Your task to perform on an android device: search for starred emails in the gmail app Image 0: 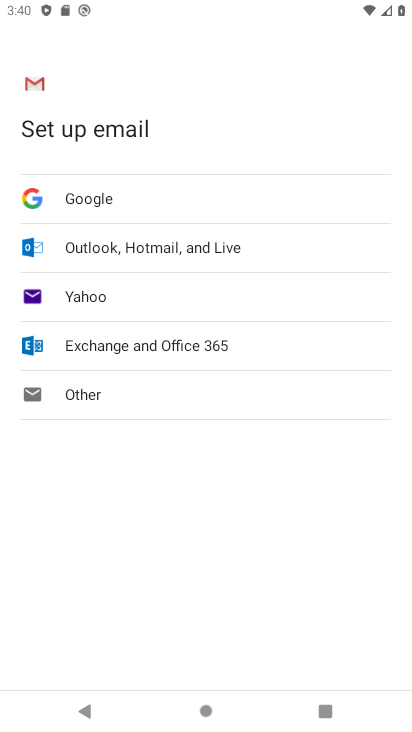
Step 0: press home button
Your task to perform on an android device: search for starred emails in the gmail app Image 1: 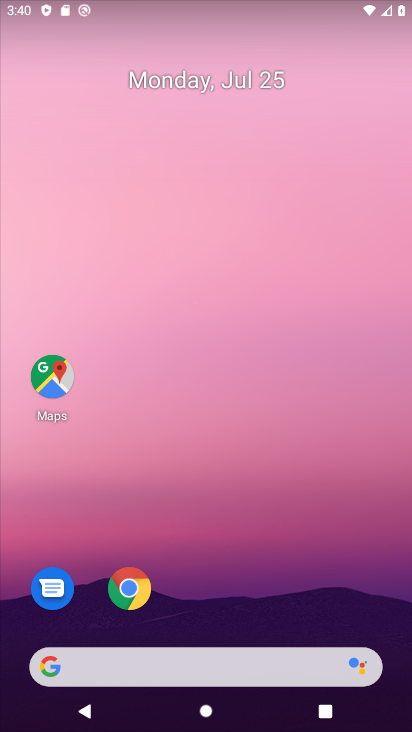
Step 1: drag from (234, 727) to (203, 106)
Your task to perform on an android device: search for starred emails in the gmail app Image 2: 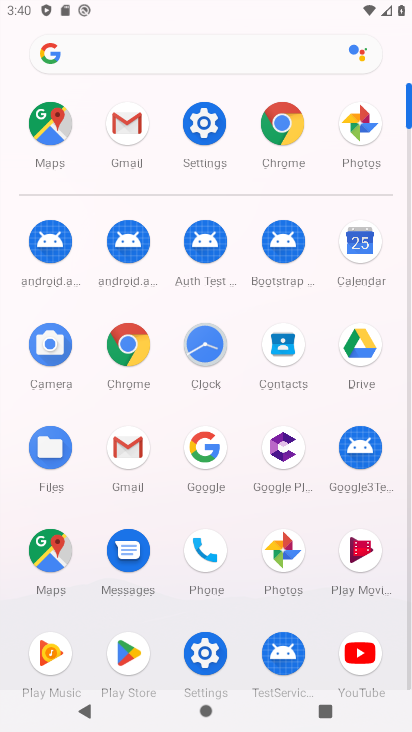
Step 2: click (130, 447)
Your task to perform on an android device: search for starred emails in the gmail app Image 3: 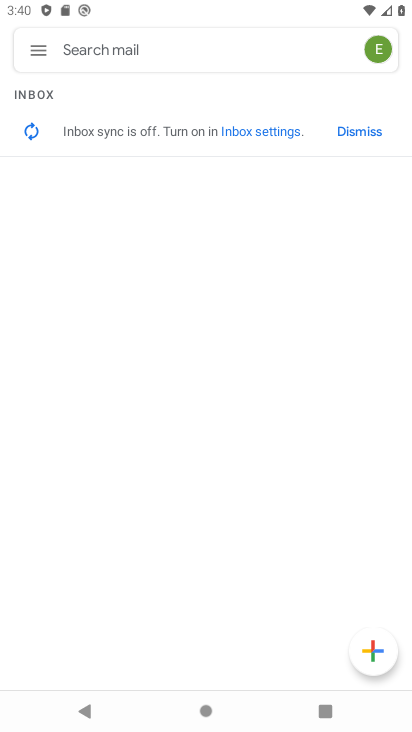
Step 3: click (36, 48)
Your task to perform on an android device: search for starred emails in the gmail app Image 4: 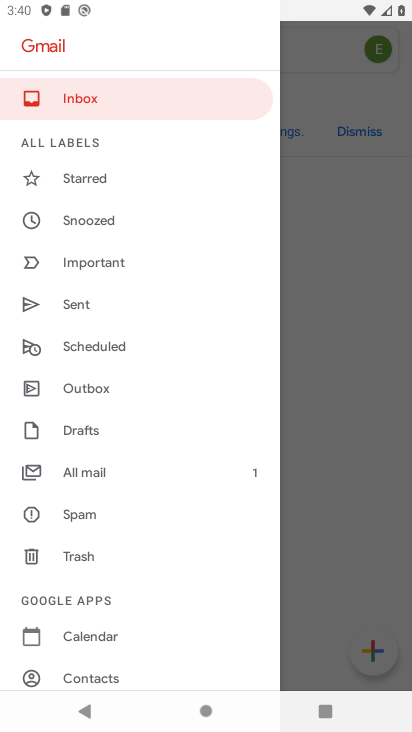
Step 4: click (82, 183)
Your task to perform on an android device: search for starred emails in the gmail app Image 5: 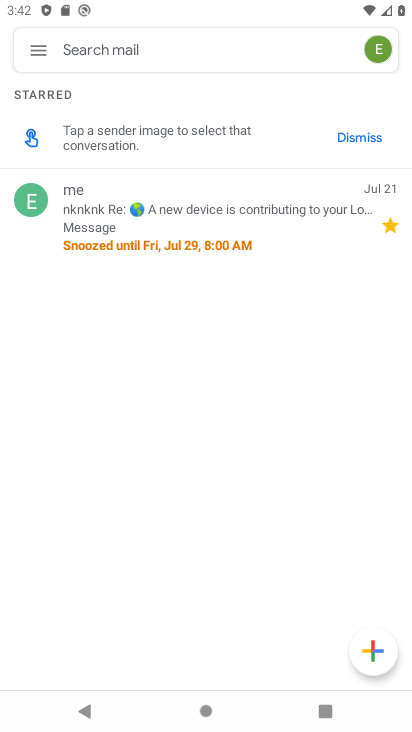
Step 5: task complete